Your task to perform on an android device: move an email to a new category in the gmail app Image 0: 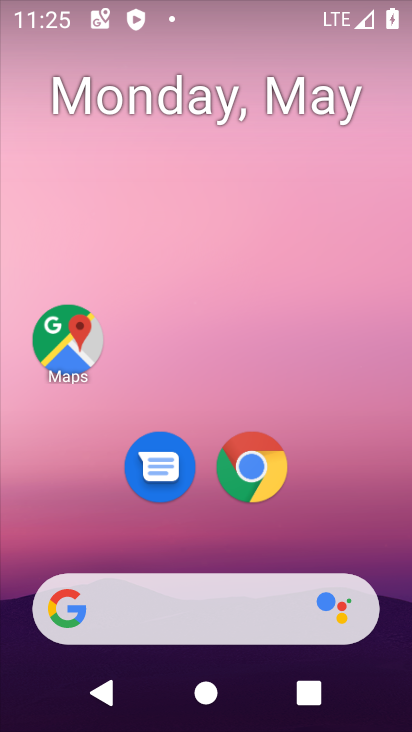
Step 0: drag from (400, 669) to (371, 85)
Your task to perform on an android device: move an email to a new category in the gmail app Image 1: 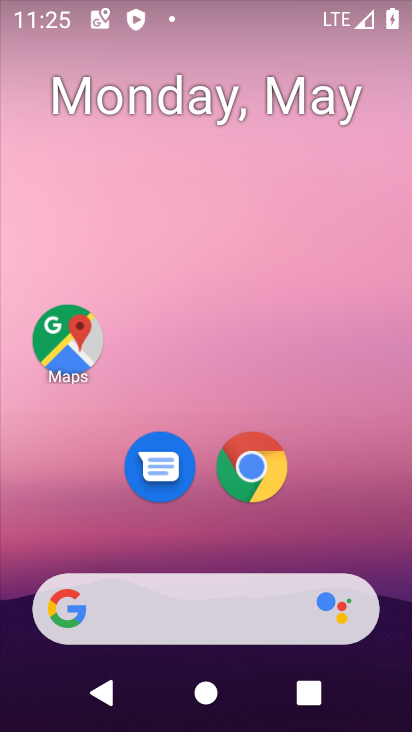
Step 1: drag from (390, 700) to (350, 79)
Your task to perform on an android device: move an email to a new category in the gmail app Image 2: 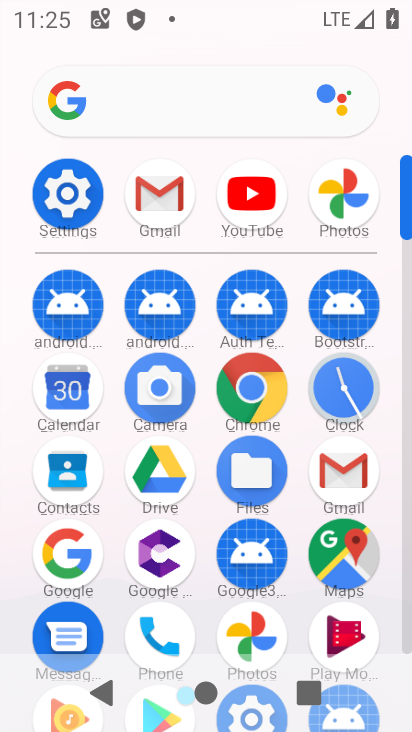
Step 2: click (140, 198)
Your task to perform on an android device: move an email to a new category in the gmail app Image 3: 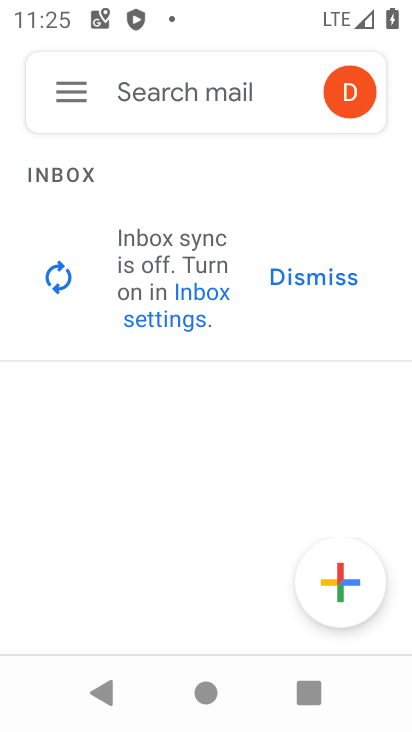
Step 3: click (71, 91)
Your task to perform on an android device: move an email to a new category in the gmail app Image 4: 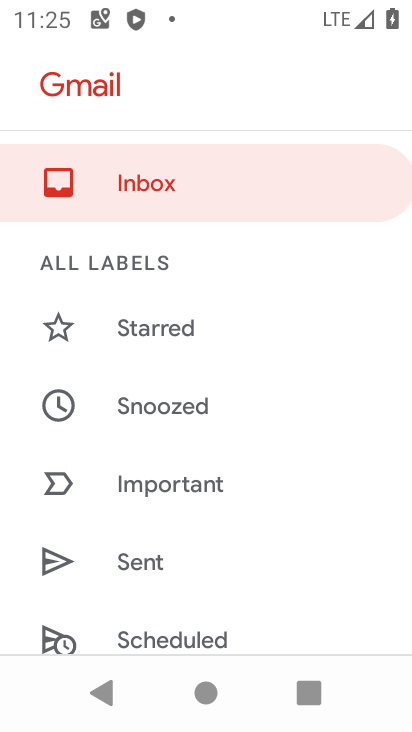
Step 4: click (193, 174)
Your task to perform on an android device: move an email to a new category in the gmail app Image 5: 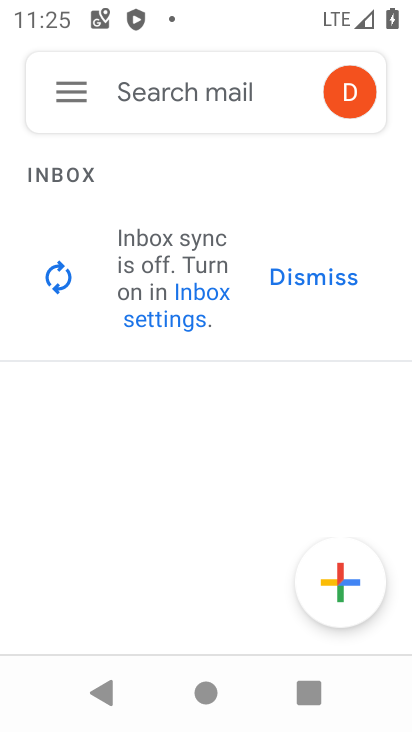
Step 5: task complete